Your task to perform on an android device: Open Google Image 0: 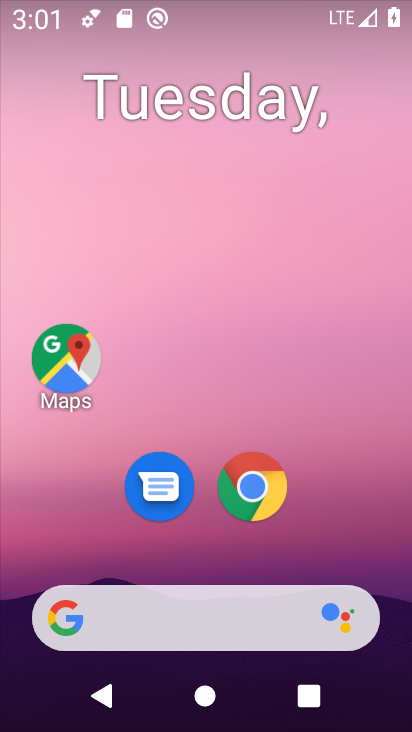
Step 0: drag from (326, 549) to (322, 139)
Your task to perform on an android device: Open Google Image 1: 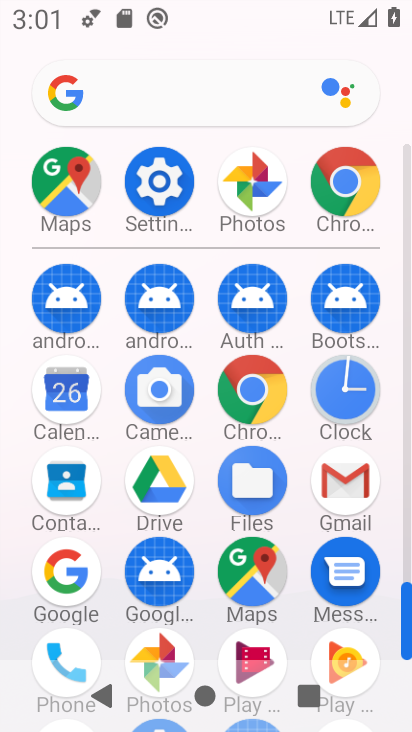
Step 1: click (64, 579)
Your task to perform on an android device: Open Google Image 2: 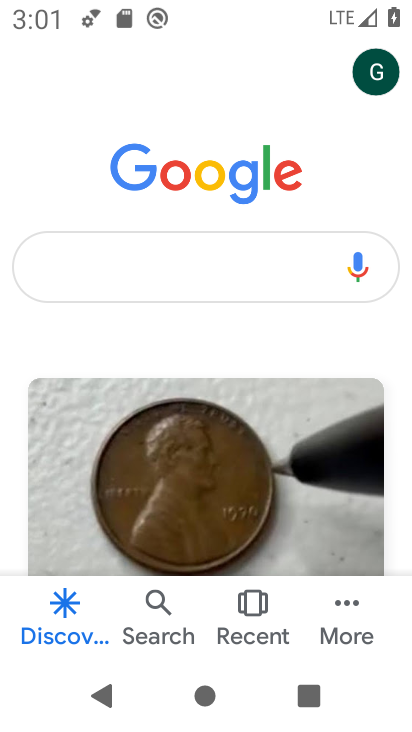
Step 2: task complete